Your task to perform on an android device: set an alarm Image 0: 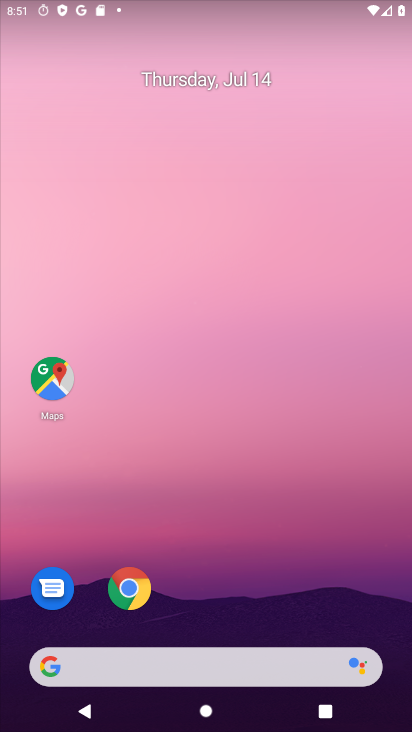
Step 0: drag from (281, 691) to (172, 100)
Your task to perform on an android device: set an alarm Image 1: 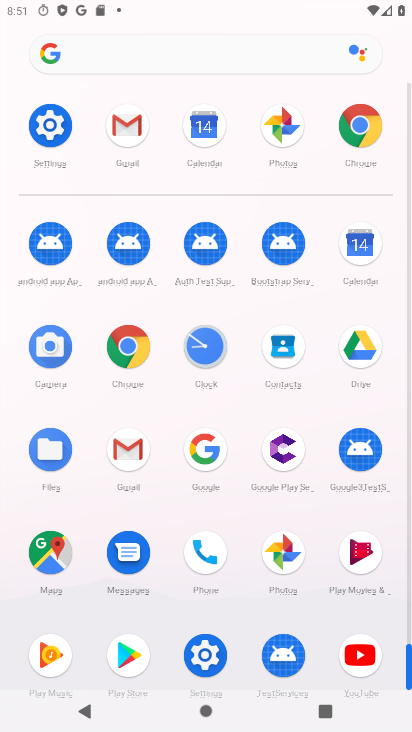
Step 1: click (209, 349)
Your task to perform on an android device: set an alarm Image 2: 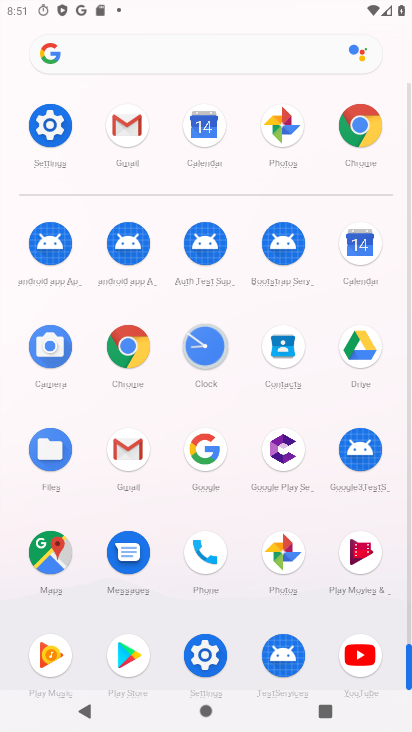
Step 2: click (207, 348)
Your task to perform on an android device: set an alarm Image 3: 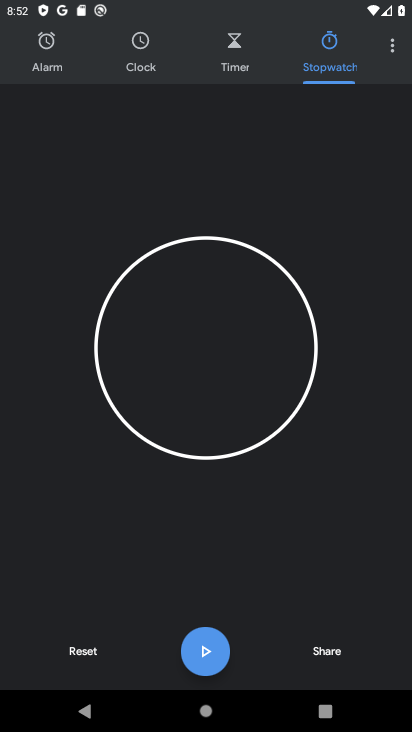
Step 3: click (50, 56)
Your task to perform on an android device: set an alarm Image 4: 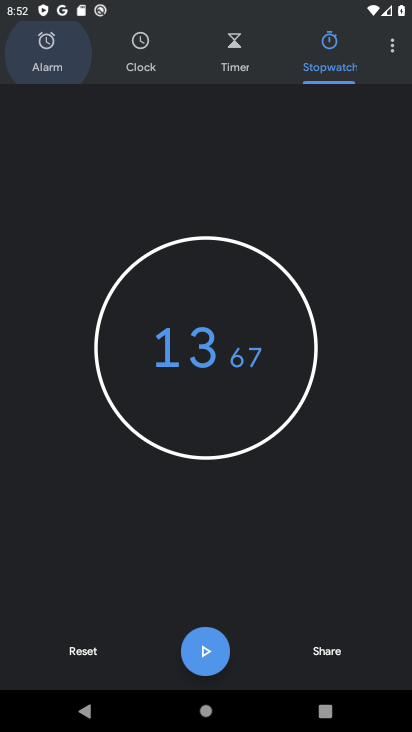
Step 4: click (49, 57)
Your task to perform on an android device: set an alarm Image 5: 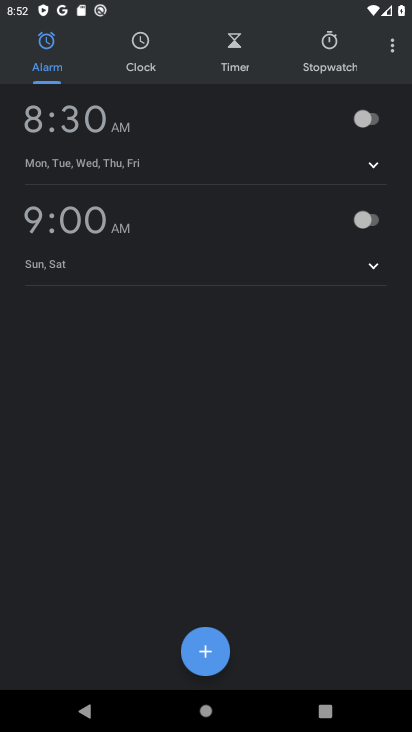
Step 5: click (364, 120)
Your task to perform on an android device: set an alarm Image 6: 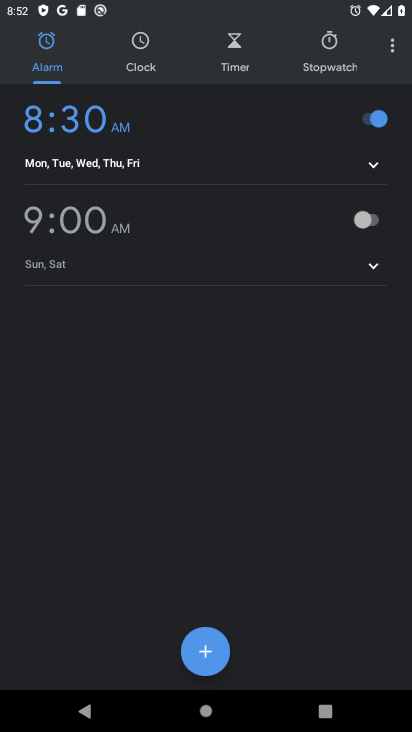
Step 6: task complete